Your task to perform on an android device: check battery use Image 0: 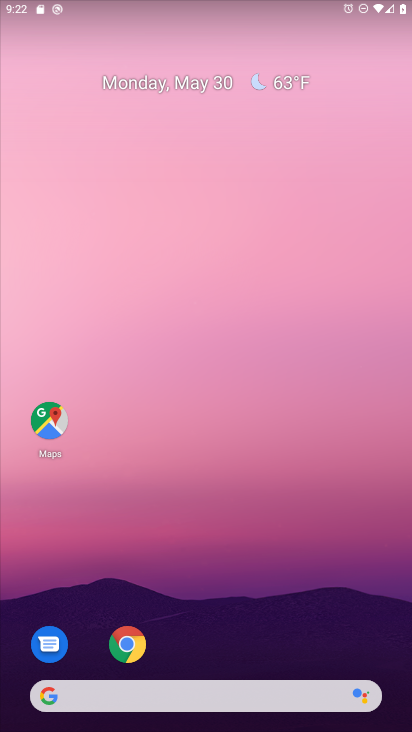
Step 0: drag from (191, 627) to (243, 21)
Your task to perform on an android device: check battery use Image 1: 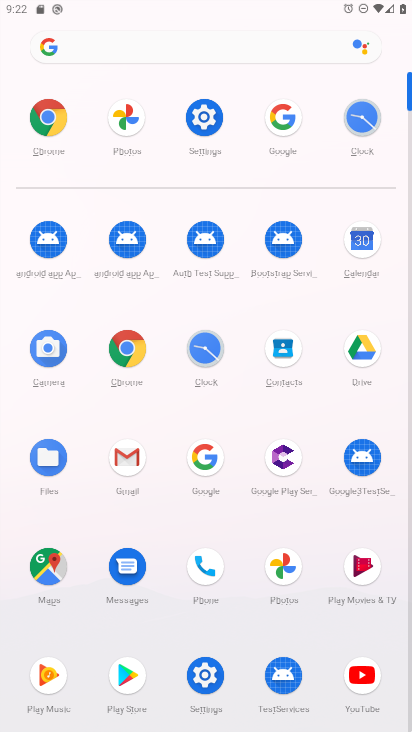
Step 1: click (205, 110)
Your task to perform on an android device: check battery use Image 2: 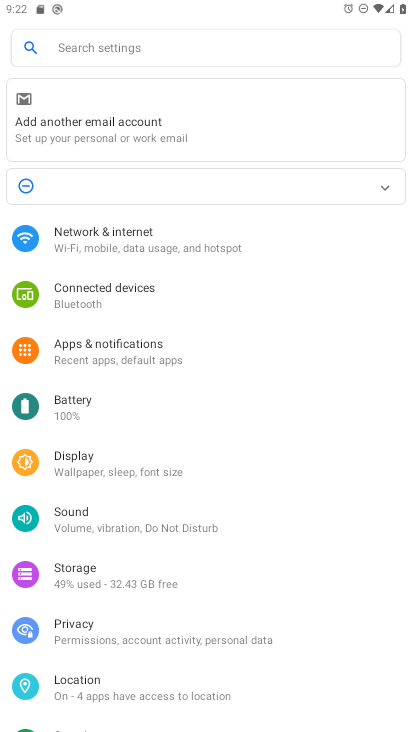
Step 2: click (111, 388)
Your task to perform on an android device: check battery use Image 3: 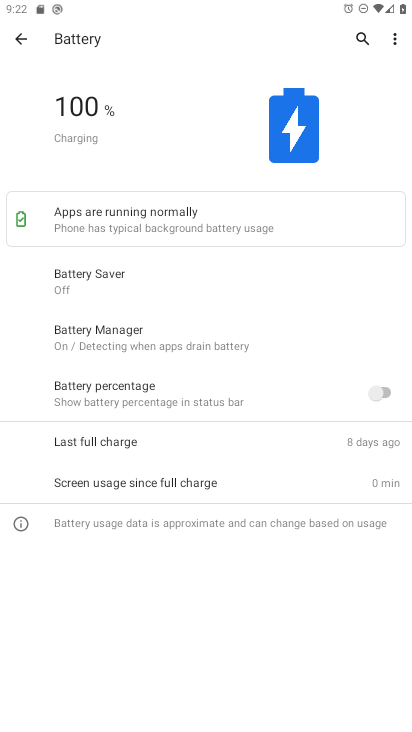
Step 3: click (390, 36)
Your task to perform on an android device: check battery use Image 4: 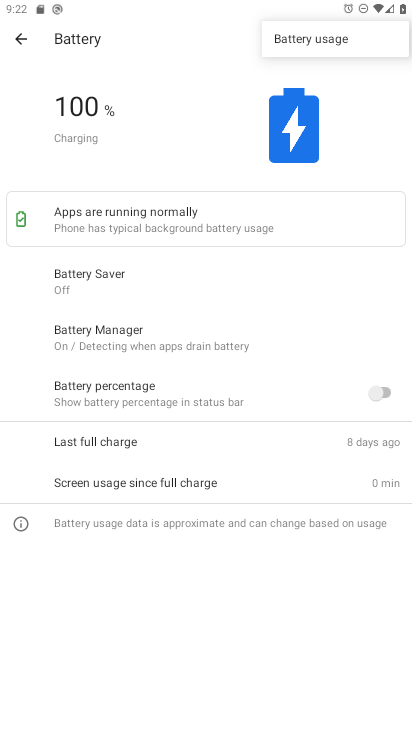
Step 4: click (309, 39)
Your task to perform on an android device: check battery use Image 5: 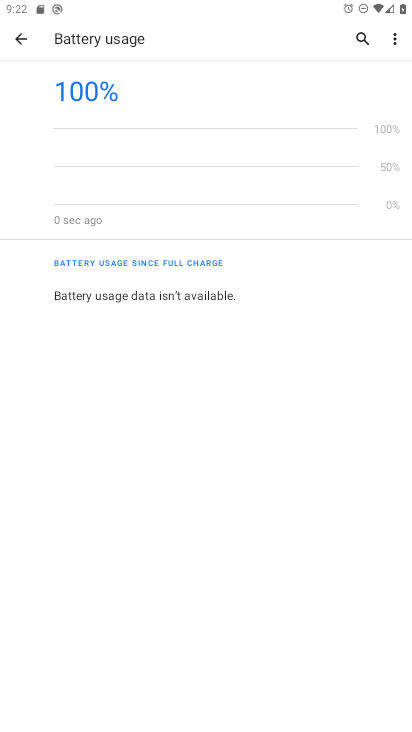
Step 5: task complete